Your task to perform on an android device: Open calendar and show me the first week of next month Image 0: 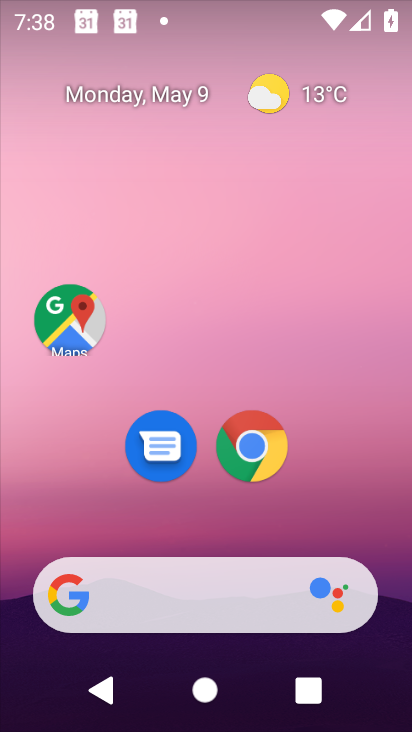
Step 0: drag from (317, 556) to (313, 143)
Your task to perform on an android device: Open calendar and show me the first week of next month Image 1: 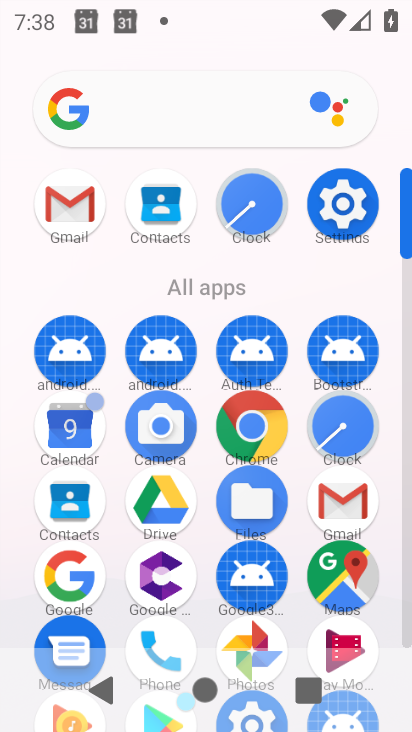
Step 1: click (61, 434)
Your task to perform on an android device: Open calendar and show me the first week of next month Image 2: 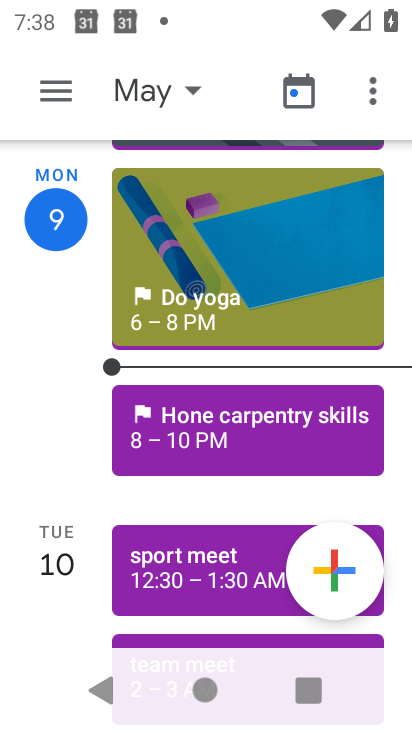
Step 2: click (140, 94)
Your task to perform on an android device: Open calendar and show me the first week of next month Image 3: 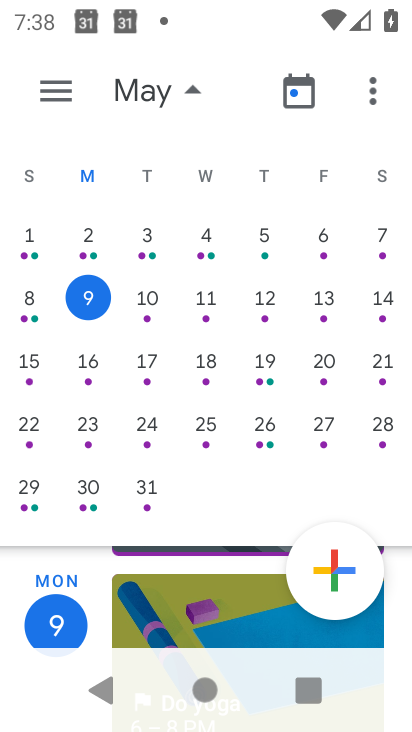
Step 3: drag from (376, 300) to (32, 290)
Your task to perform on an android device: Open calendar and show me the first week of next month Image 4: 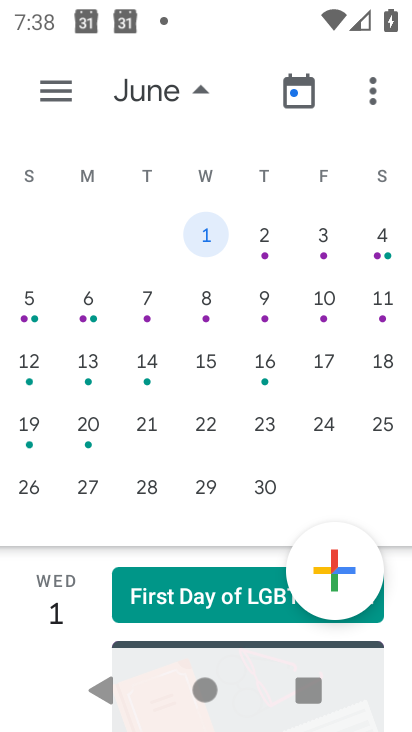
Step 4: click (255, 249)
Your task to perform on an android device: Open calendar and show me the first week of next month Image 5: 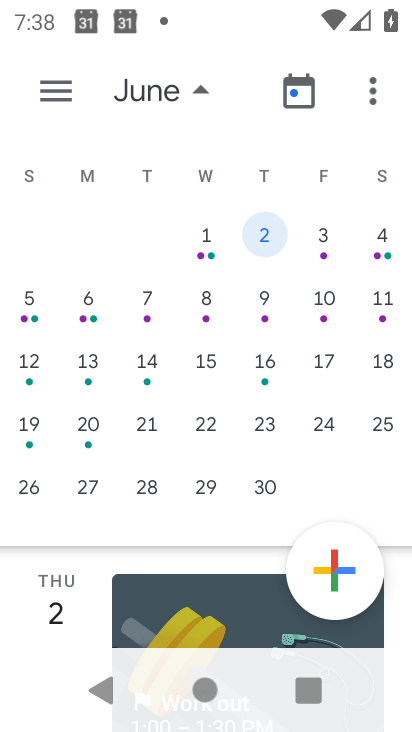
Step 5: click (323, 255)
Your task to perform on an android device: Open calendar and show me the first week of next month Image 6: 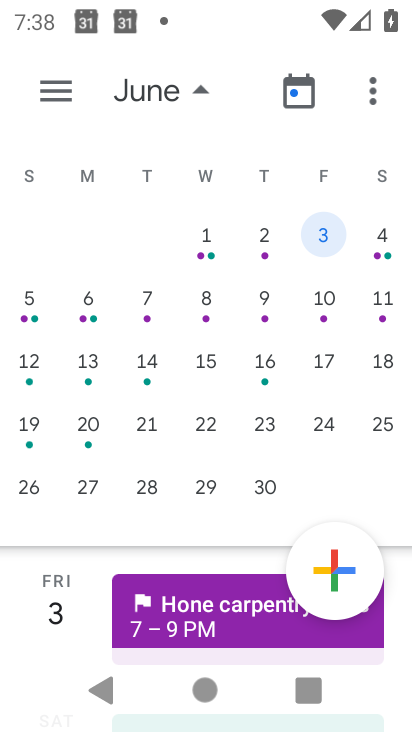
Step 6: click (393, 261)
Your task to perform on an android device: Open calendar and show me the first week of next month Image 7: 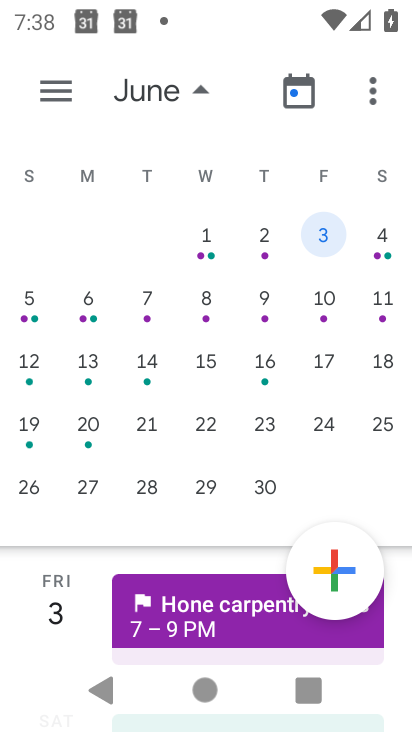
Step 7: click (385, 248)
Your task to perform on an android device: Open calendar and show me the first week of next month Image 8: 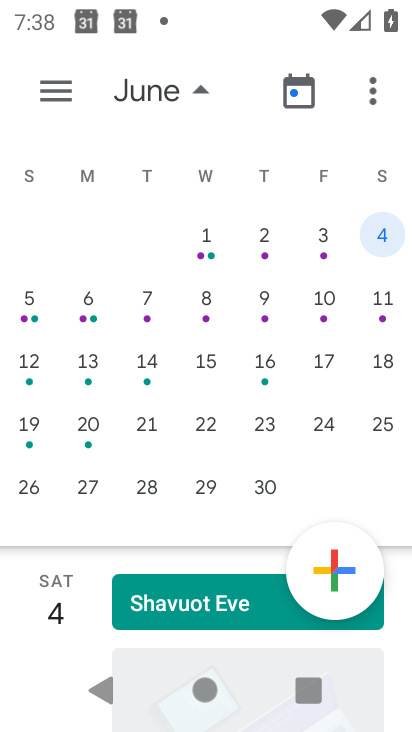
Step 8: task complete